Your task to perform on an android device: What's on my calendar today? Image 0: 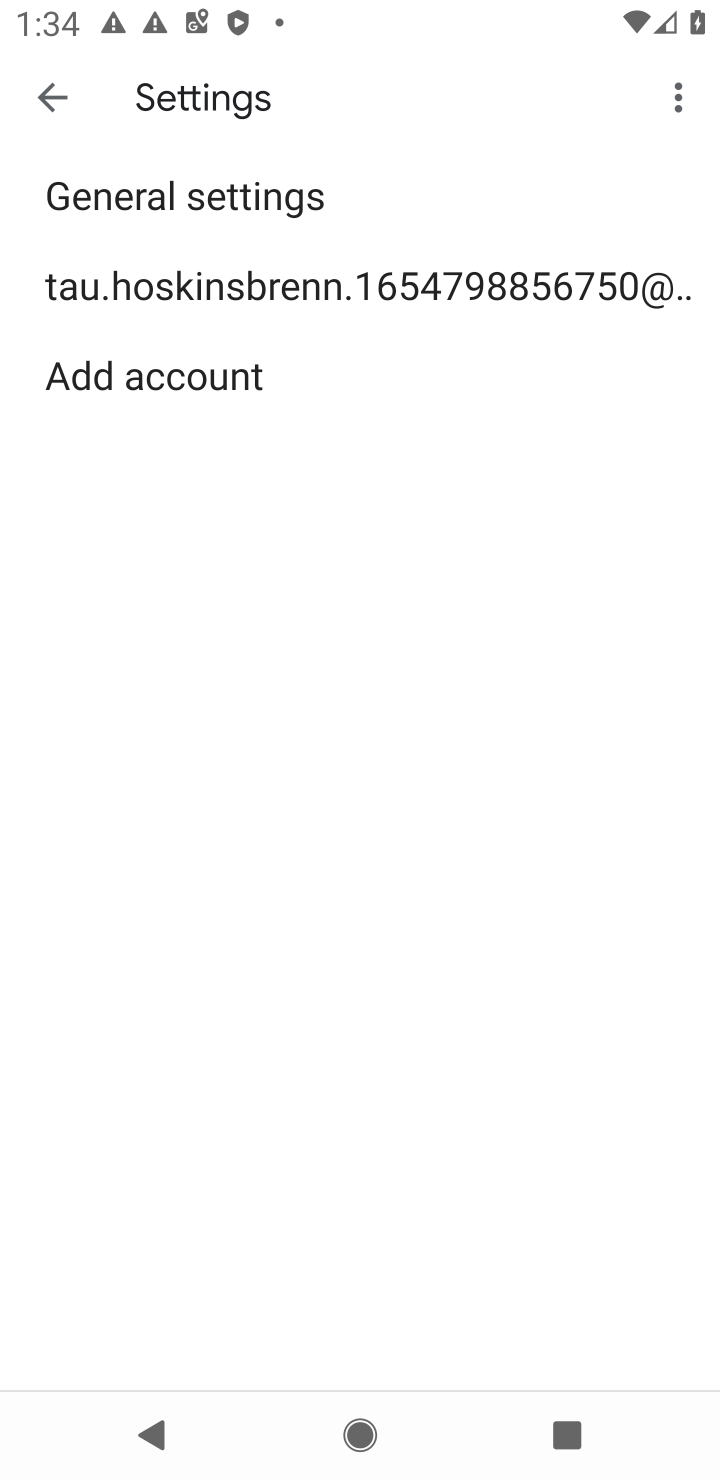
Step 0: press home button
Your task to perform on an android device: What's on my calendar today? Image 1: 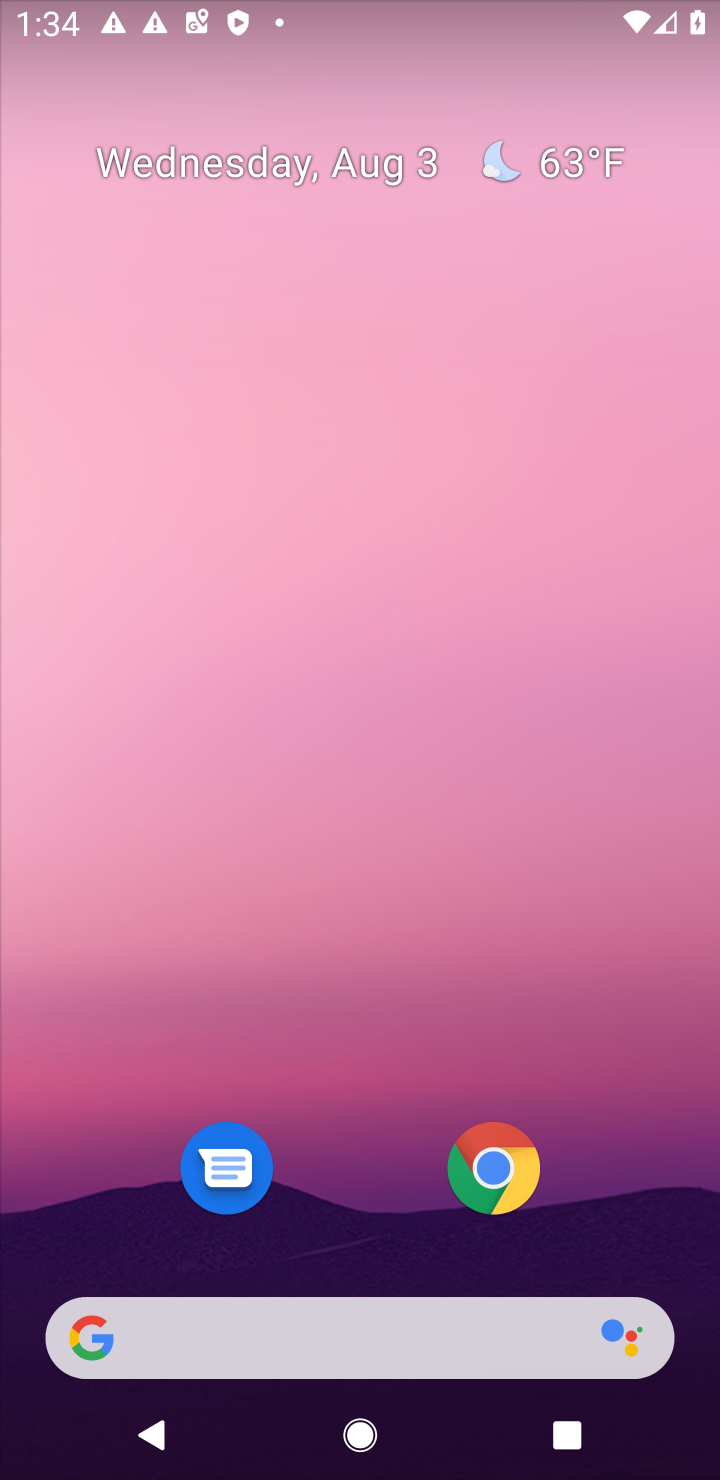
Step 1: drag from (618, 1059) to (590, 140)
Your task to perform on an android device: What's on my calendar today? Image 2: 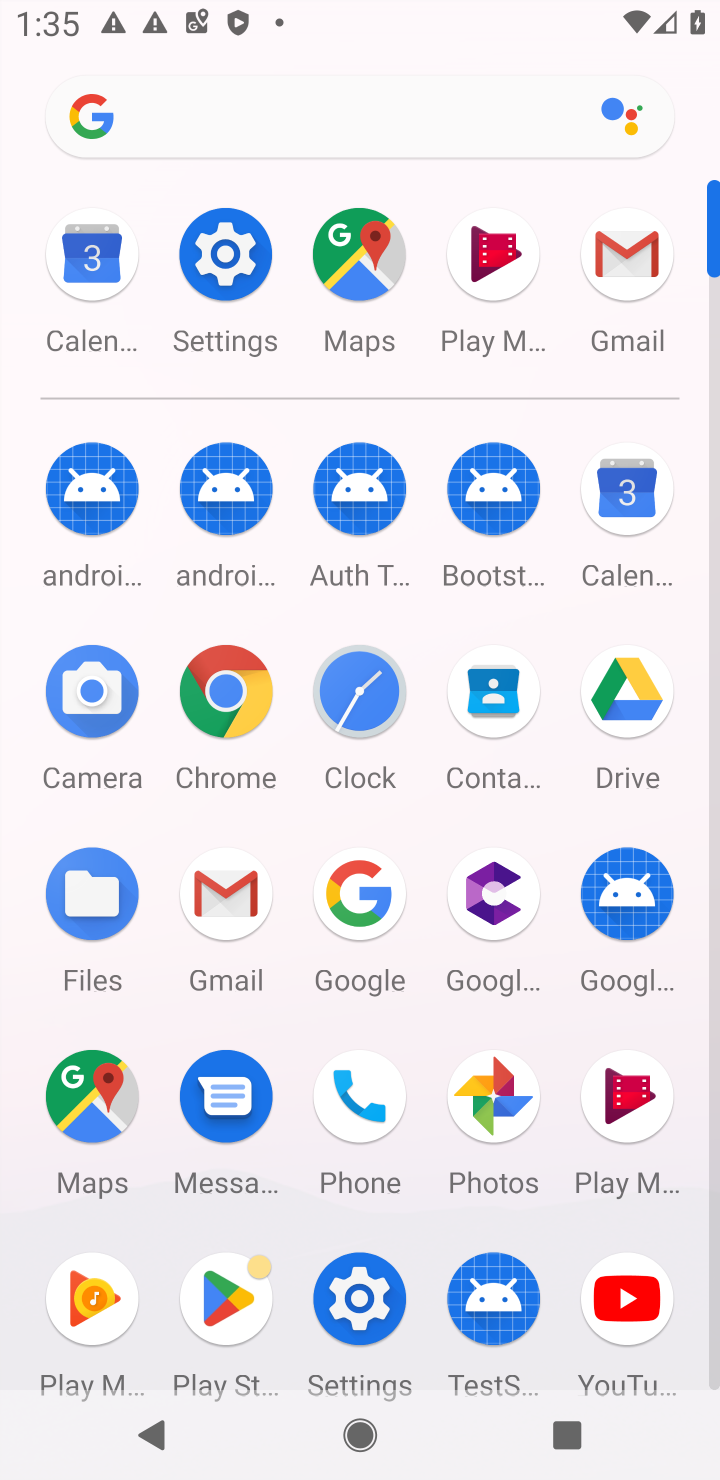
Step 2: click (627, 500)
Your task to perform on an android device: What's on my calendar today? Image 3: 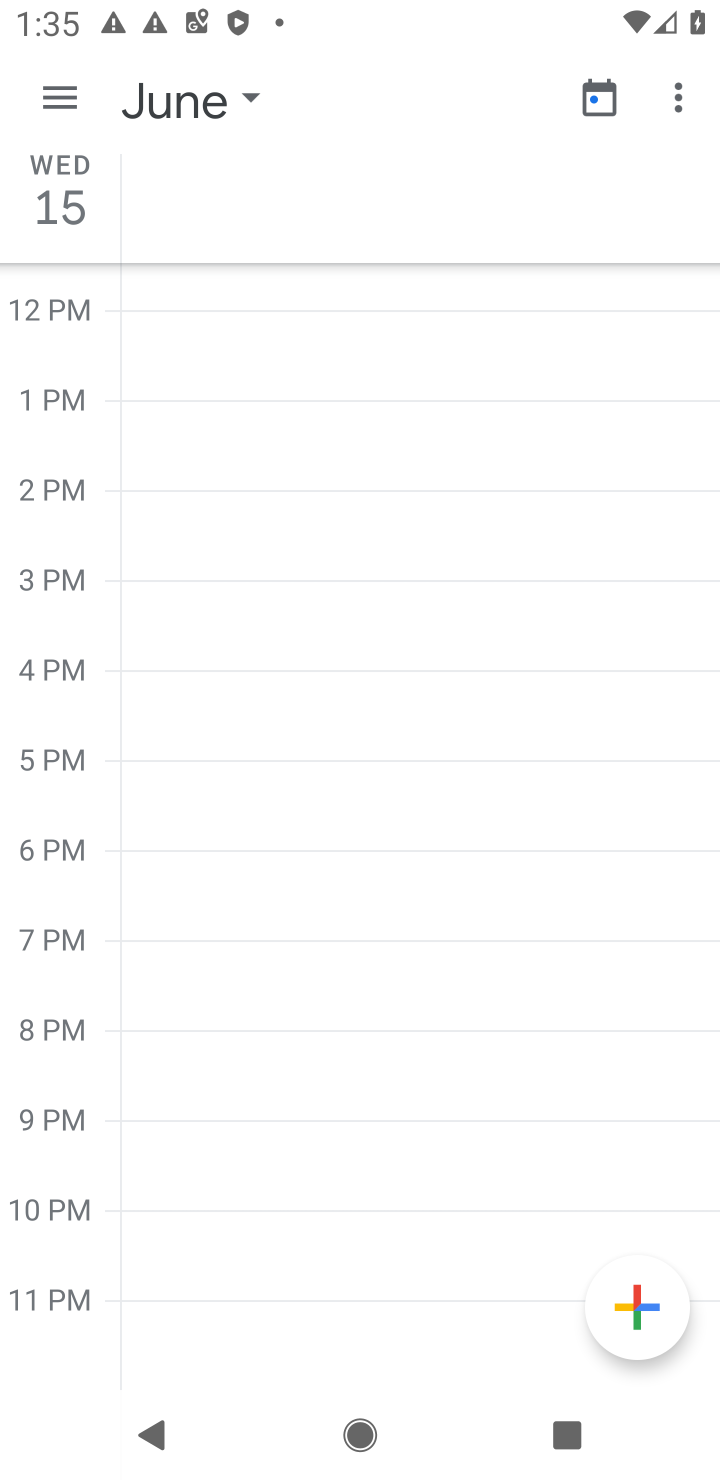
Step 3: click (250, 101)
Your task to perform on an android device: What's on my calendar today? Image 4: 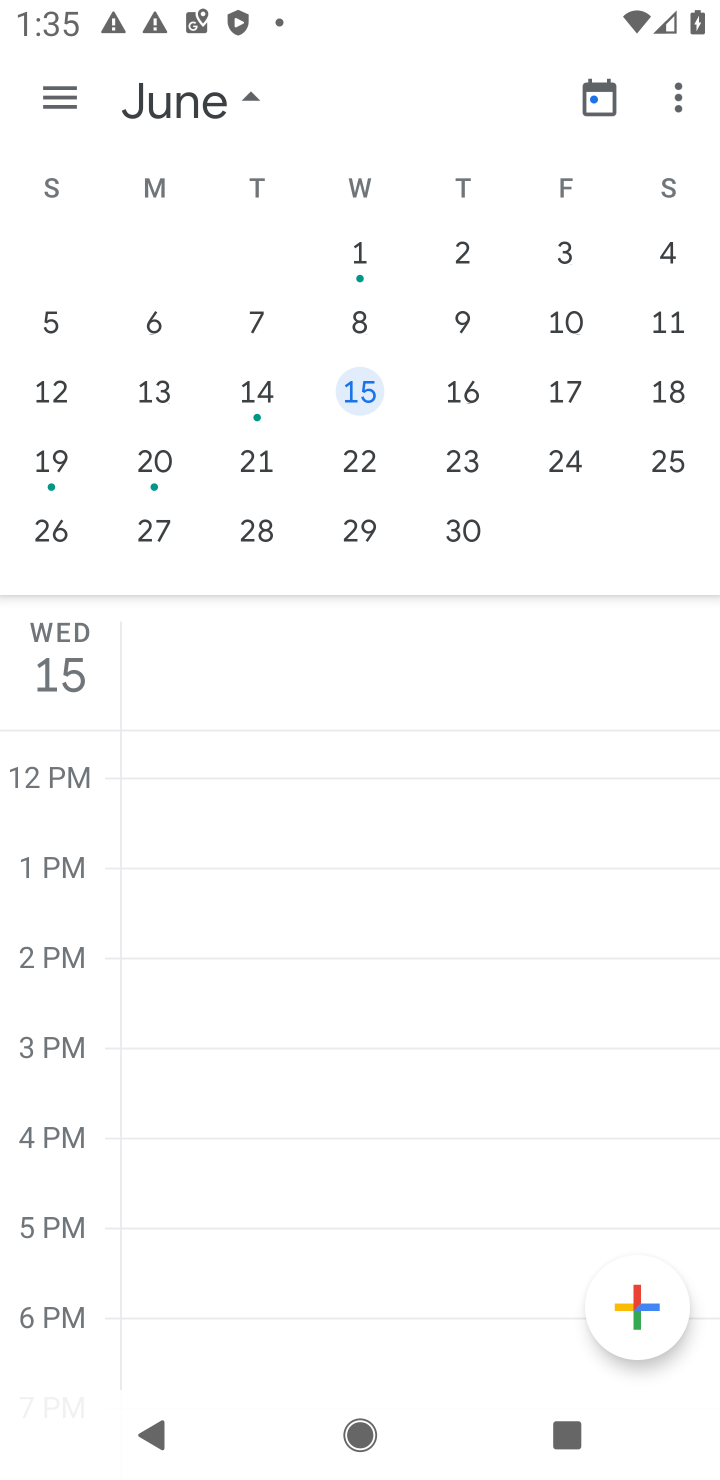
Step 4: click (248, 390)
Your task to perform on an android device: What's on my calendar today? Image 5: 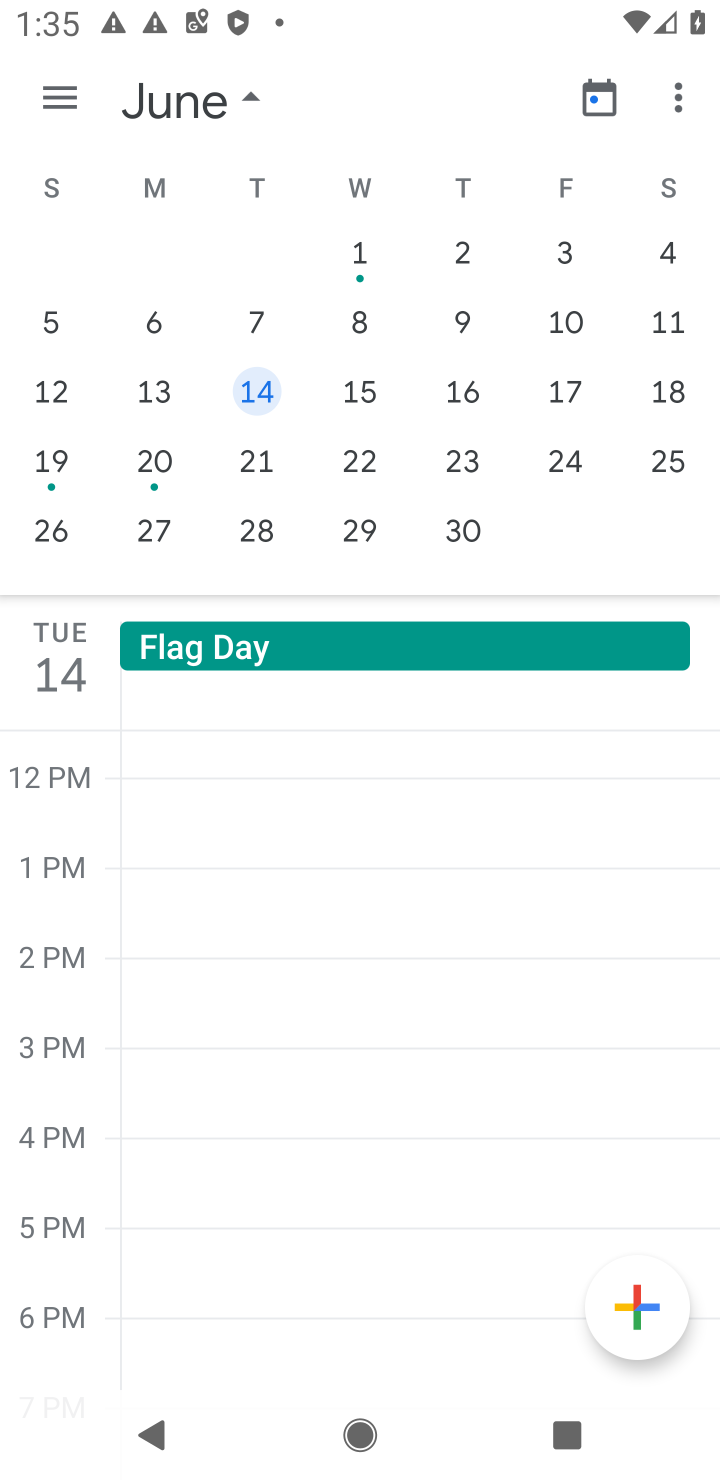
Step 5: task complete